Your task to perform on an android device: open a new tab in the chrome app Image 0: 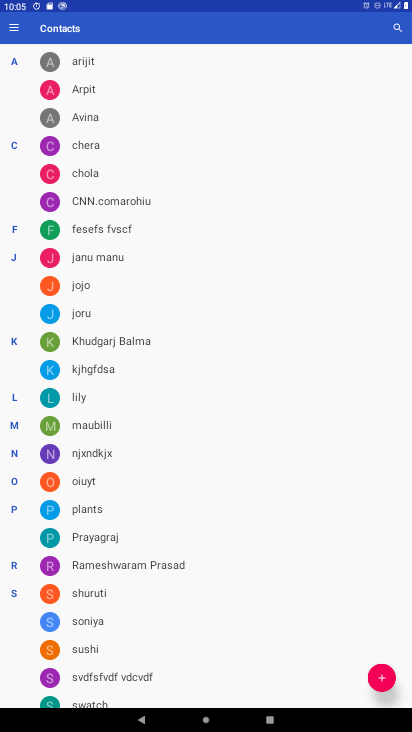
Step 0: press home button
Your task to perform on an android device: open a new tab in the chrome app Image 1: 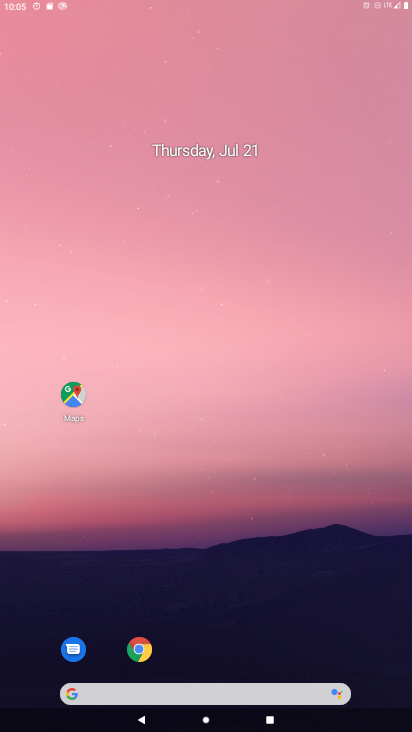
Step 1: drag from (385, 664) to (175, 42)
Your task to perform on an android device: open a new tab in the chrome app Image 2: 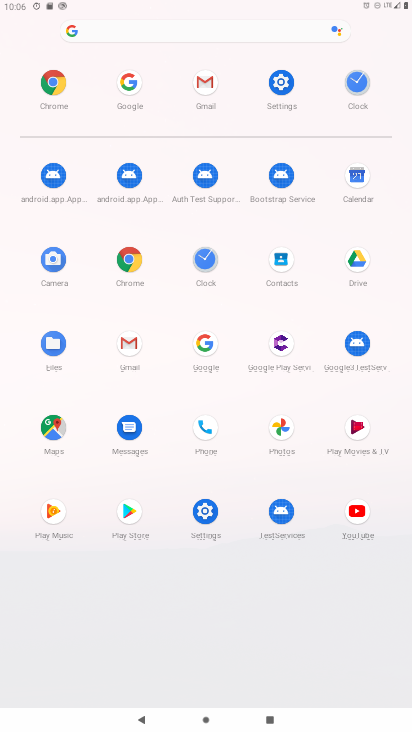
Step 2: click (128, 264)
Your task to perform on an android device: open a new tab in the chrome app Image 3: 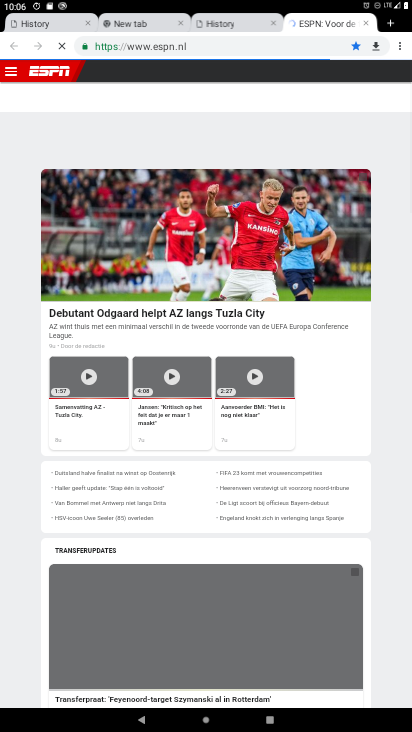
Step 3: click (367, 24)
Your task to perform on an android device: open a new tab in the chrome app Image 4: 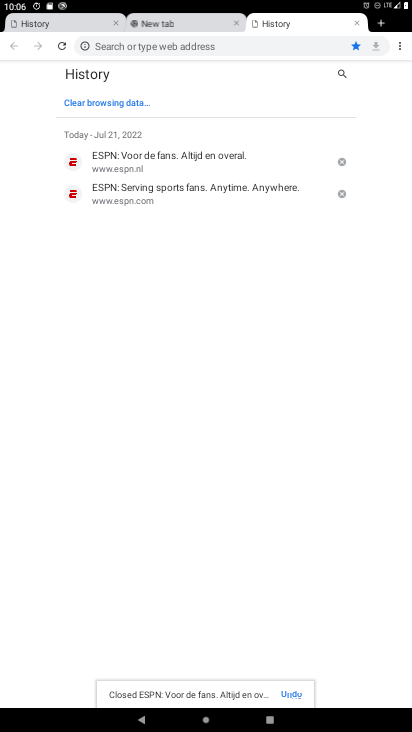
Step 4: click (355, 23)
Your task to perform on an android device: open a new tab in the chrome app Image 5: 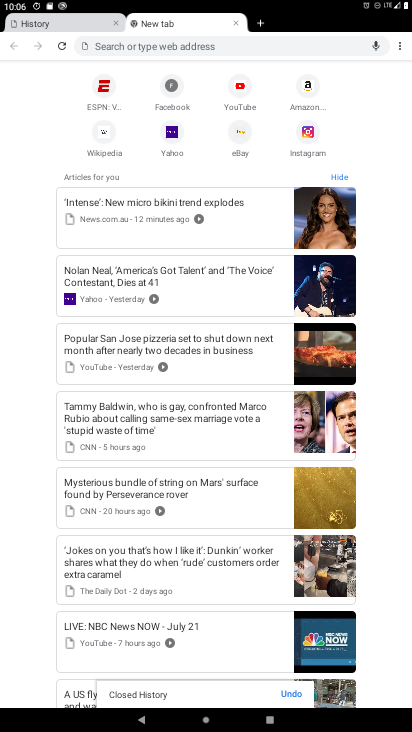
Step 5: click (257, 25)
Your task to perform on an android device: open a new tab in the chrome app Image 6: 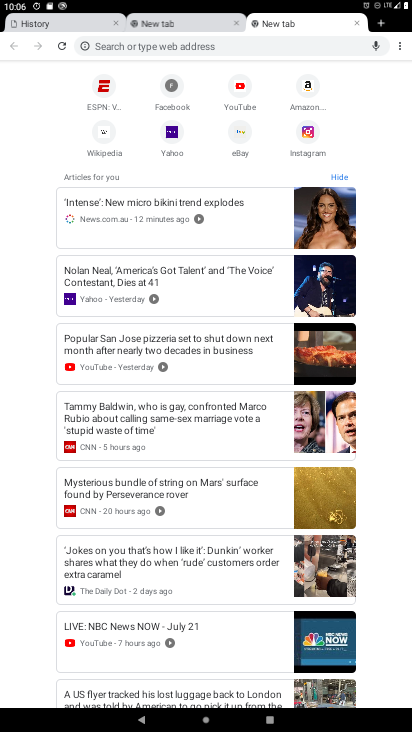
Step 6: task complete